Your task to perform on an android device: Open Google Maps Image 0: 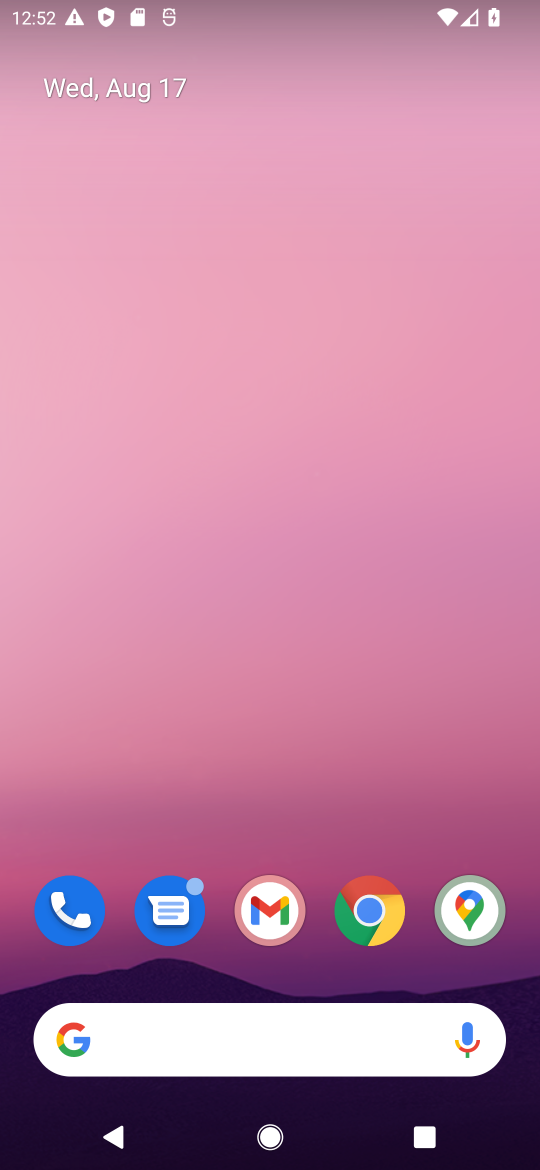
Step 0: click (459, 903)
Your task to perform on an android device: Open Google Maps Image 1: 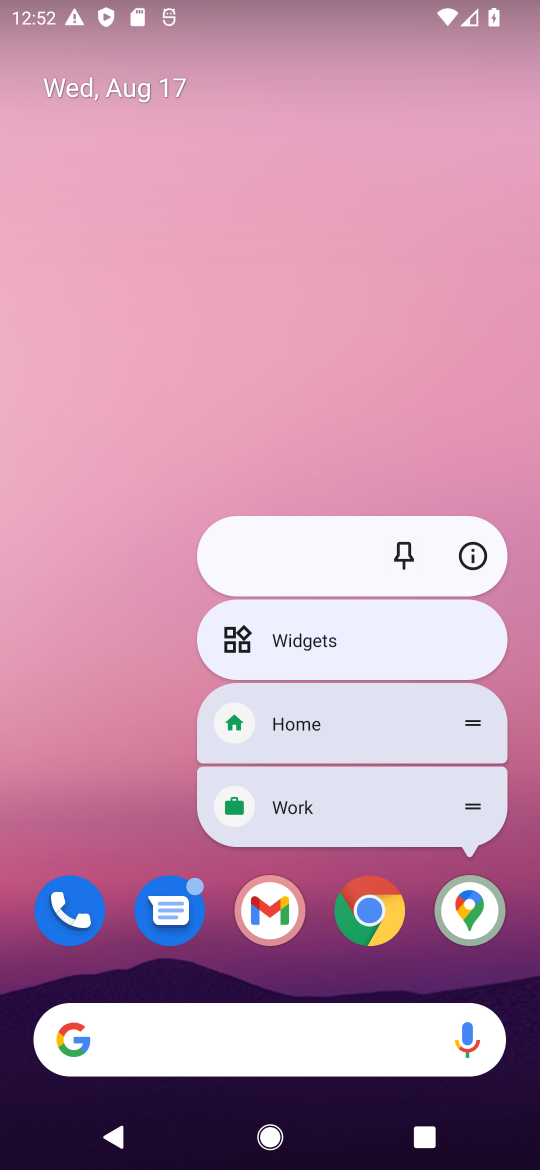
Step 1: click (468, 913)
Your task to perform on an android device: Open Google Maps Image 2: 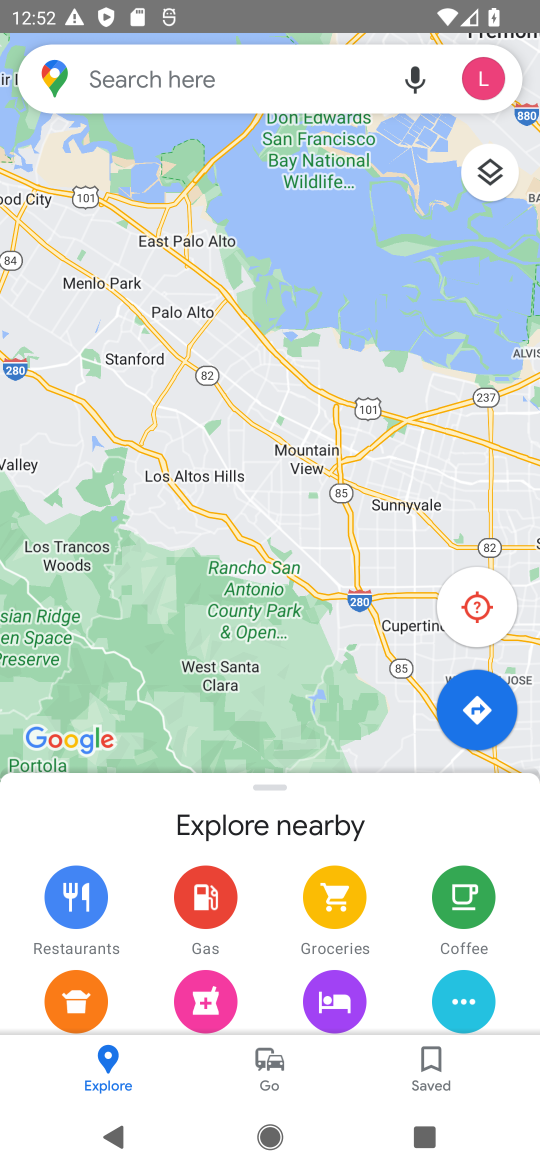
Step 2: task complete